Your task to perform on an android device: change the clock style Image 0: 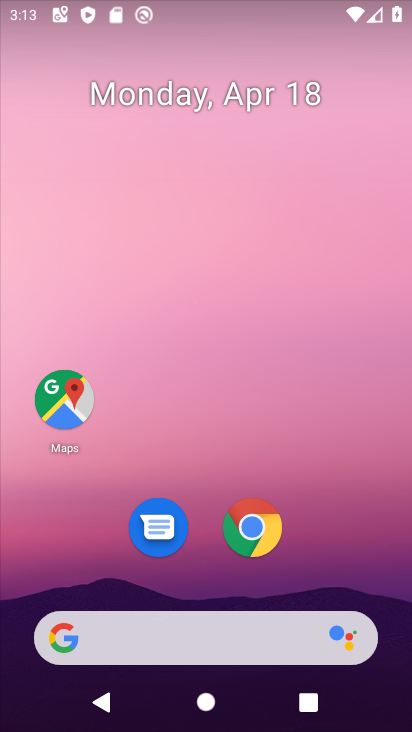
Step 0: drag from (222, 627) to (244, 187)
Your task to perform on an android device: change the clock style Image 1: 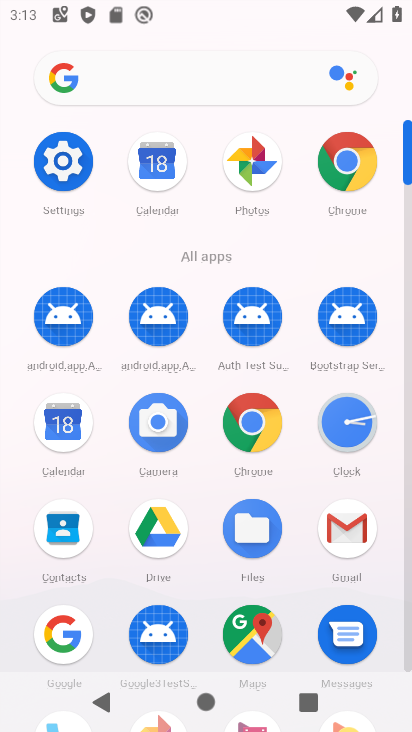
Step 1: click (335, 427)
Your task to perform on an android device: change the clock style Image 2: 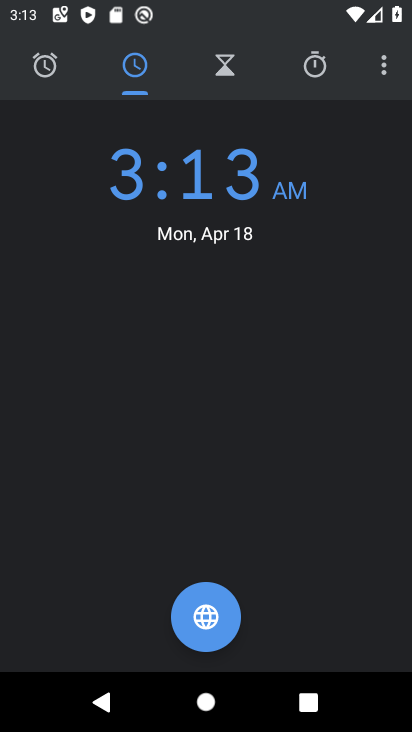
Step 2: click (380, 81)
Your task to perform on an android device: change the clock style Image 3: 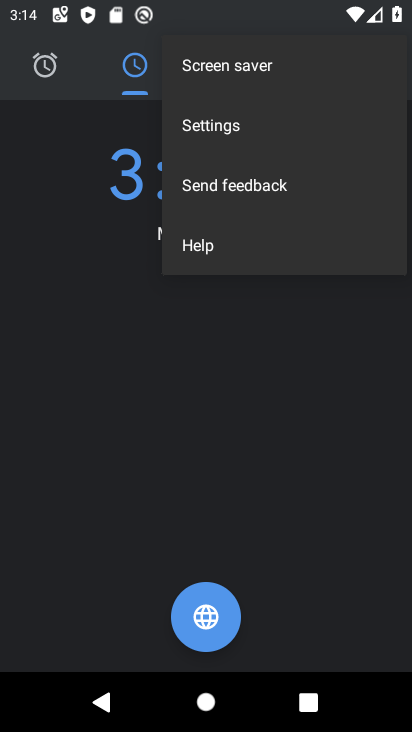
Step 3: click (228, 128)
Your task to perform on an android device: change the clock style Image 4: 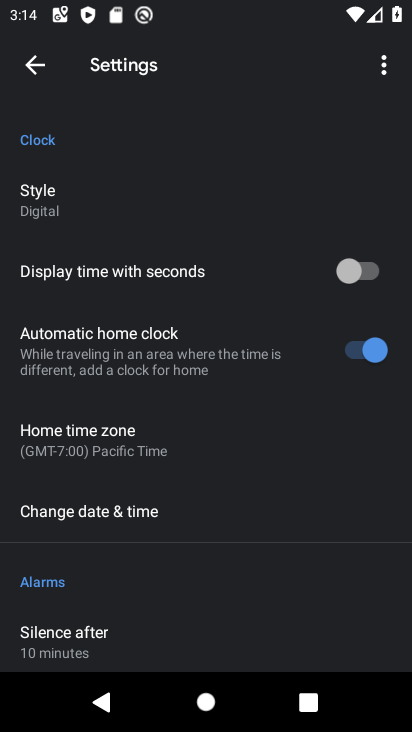
Step 4: click (106, 197)
Your task to perform on an android device: change the clock style Image 5: 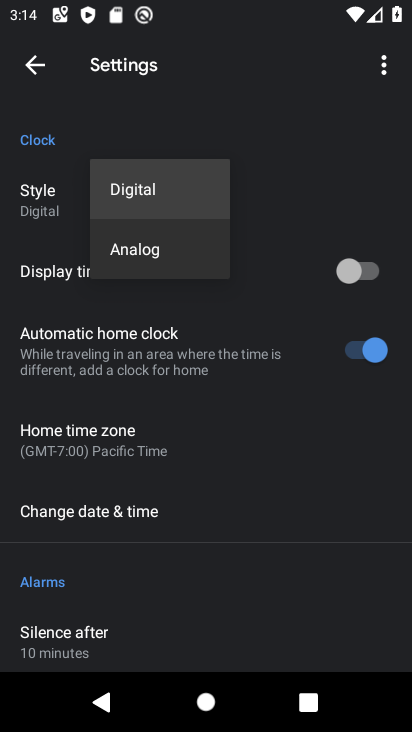
Step 5: click (121, 250)
Your task to perform on an android device: change the clock style Image 6: 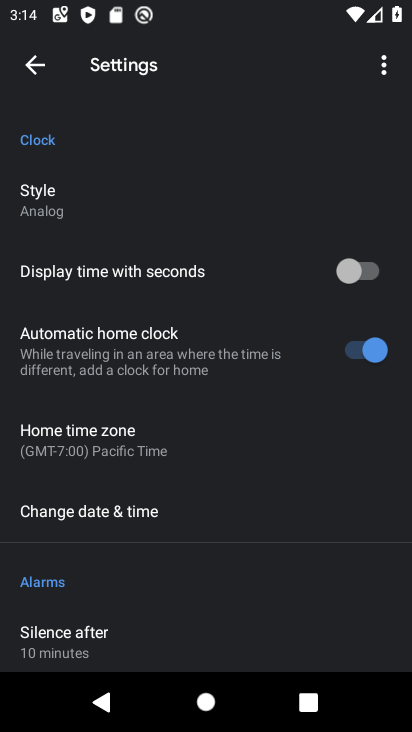
Step 6: task complete